Your task to perform on an android device: Search for vegetarian restaurants on Maps Image 0: 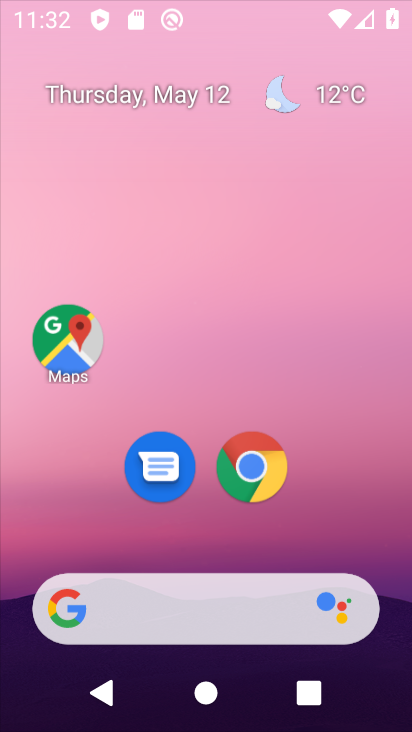
Step 0: click (306, 495)
Your task to perform on an android device: Search for vegetarian restaurants on Maps Image 1: 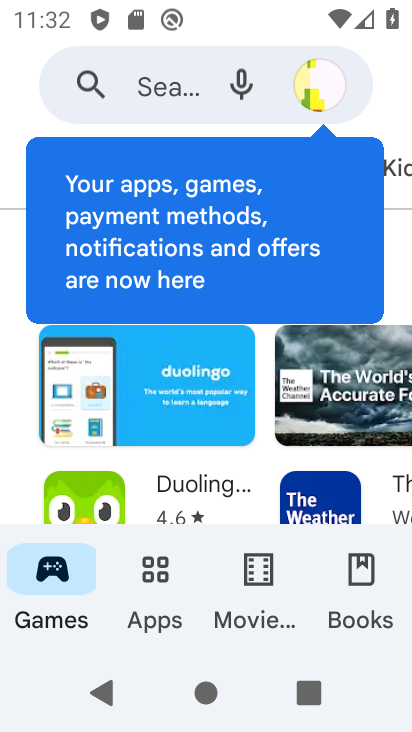
Step 1: press back button
Your task to perform on an android device: Search for vegetarian restaurants on Maps Image 2: 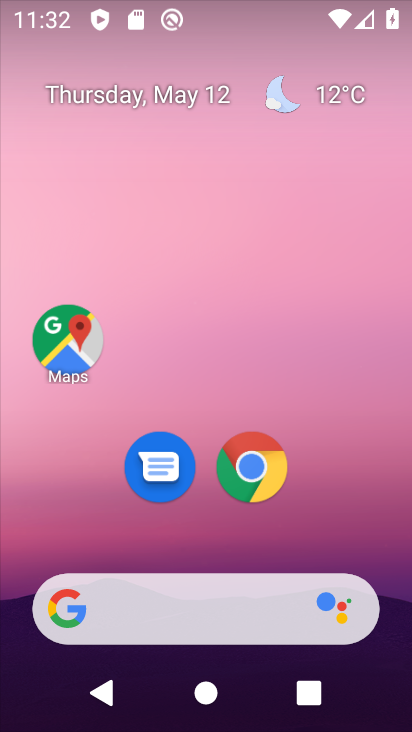
Step 2: drag from (313, 431) to (224, 29)
Your task to perform on an android device: Search for vegetarian restaurants on Maps Image 3: 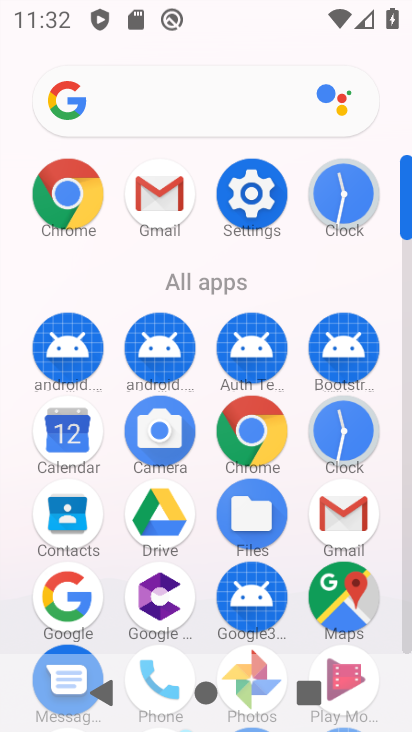
Step 3: drag from (4, 565) to (3, 277)
Your task to perform on an android device: Search for vegetarian restaurants on Maps Image 4: 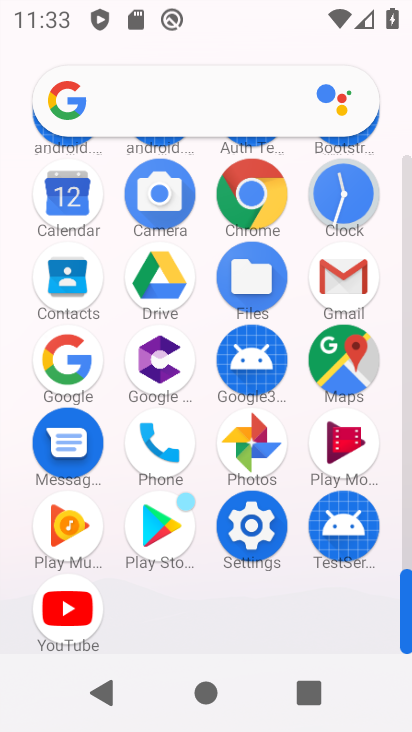
Step 4: click (336, 360)
Your task to perform on an android device: Search for vegetarian restaurants on Maps Image 5: 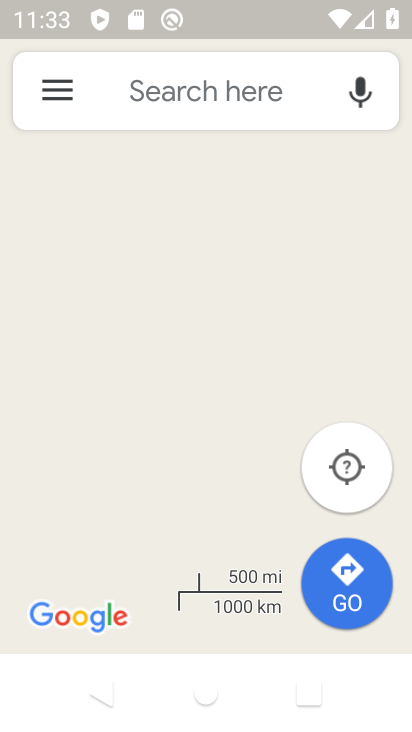
Step 5: click (121, 93)
Your task to perform on an android device: Search for vegetarian restaurants on Maps Image 6: 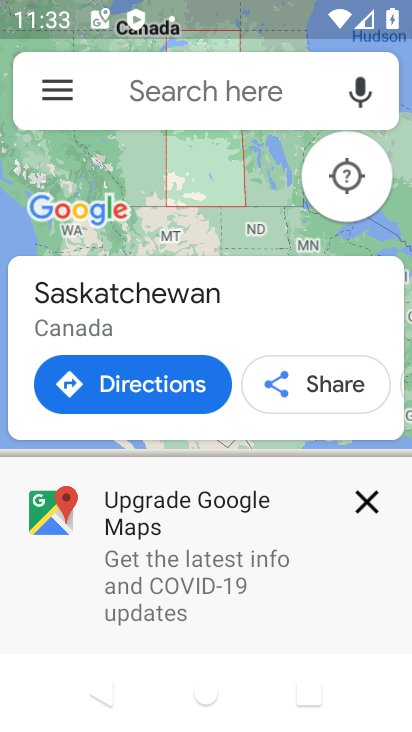
Step 6: click (117, 86)
Your task to perform on an android device: Search for vegetarian restaurants on Maps Image 7: 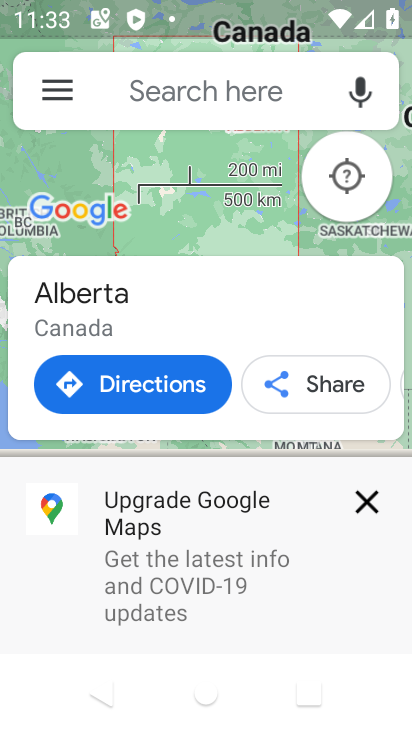
Step 7: click (176, 82)
Your task to perform on an android device: Search for vegetarian restaurants on Maps Image 8: 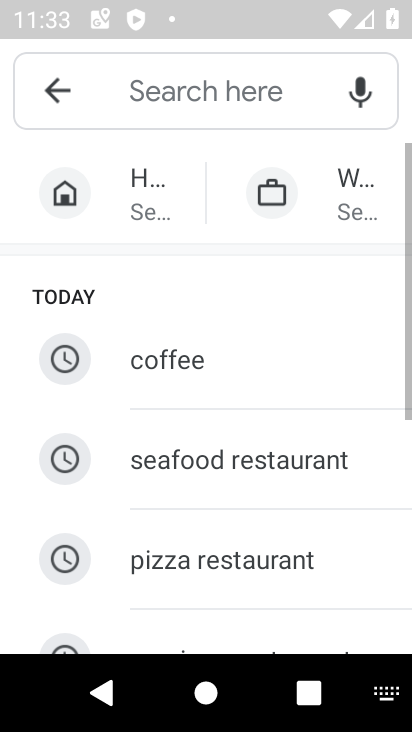
Step 8: drag from (271, 572) to (254, 292)
Your task to perform on an android device: Search for vegetarian restaurants on Maps Image 9: 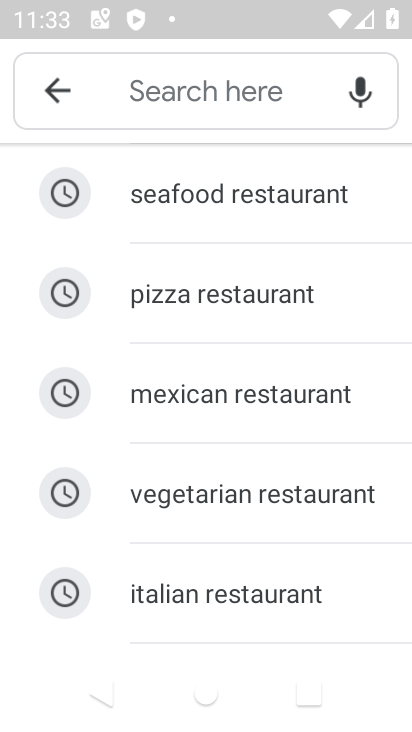
Step 9: click (212, 491)
Your task to perform on an android device: Search for vegetarian restaurants on Maps Image 10: 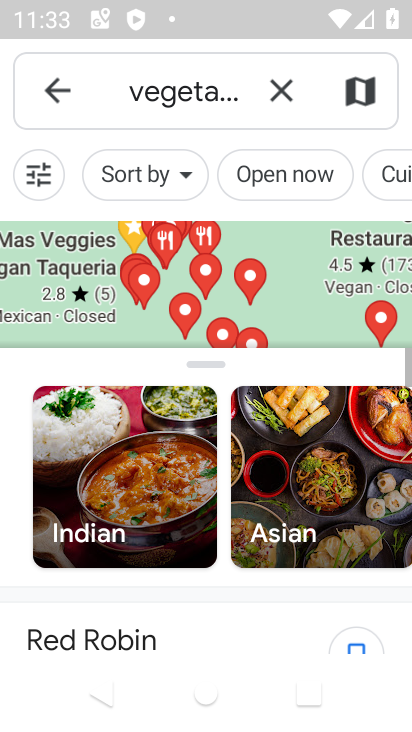
Step 10: task complete